Your task to perform on an android device: toggle location history Image 0: 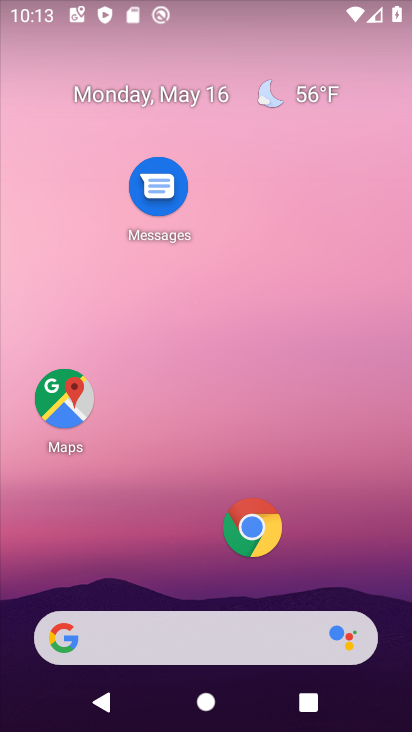
Step 0: drag from (156, 550) to (226, 62)
Your task to perform on an android device: toggle location history Image 1: 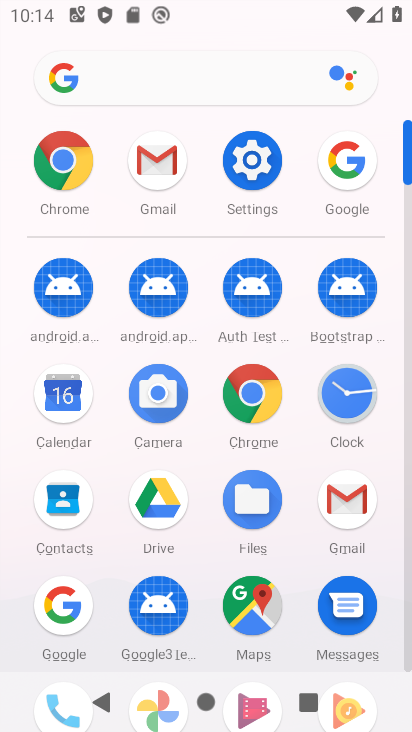
Step 1: click (251, 145)
Your task to perform on an android device: toggle location history Image 2: 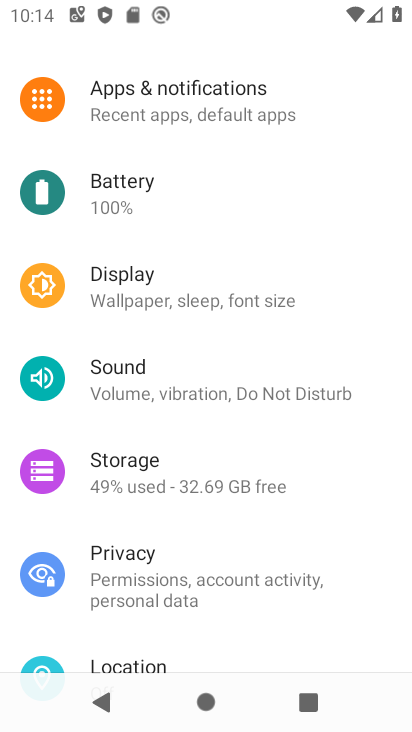
Step 2: click (123, 666)
Your task to perform on an android device: toggle location history Image 3: 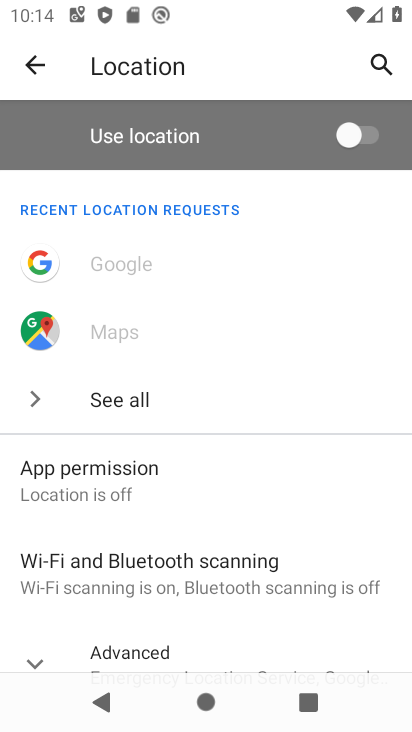
Step 3: drag from (143, 647) to (177, 259)
Your task to perform on an android device: toggle location history Image 4: 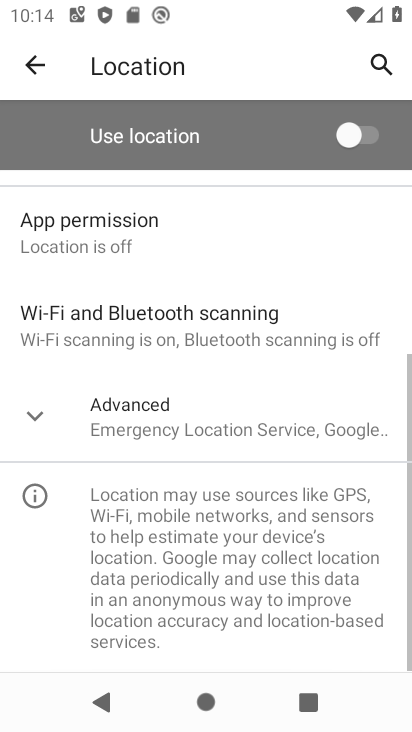
Step 4: click (130, 405)
Your task to perform on an android device: toggle location history Image 5: 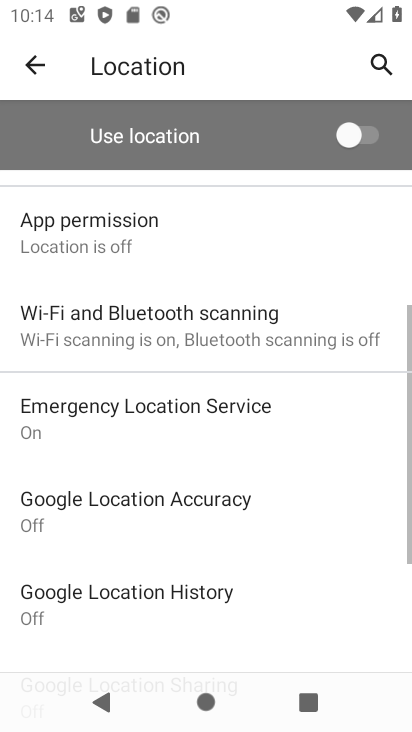
Step 5: drag from (220, 548) to (213, 440)
Your task to perform on an android device: toggle location history Image 6: 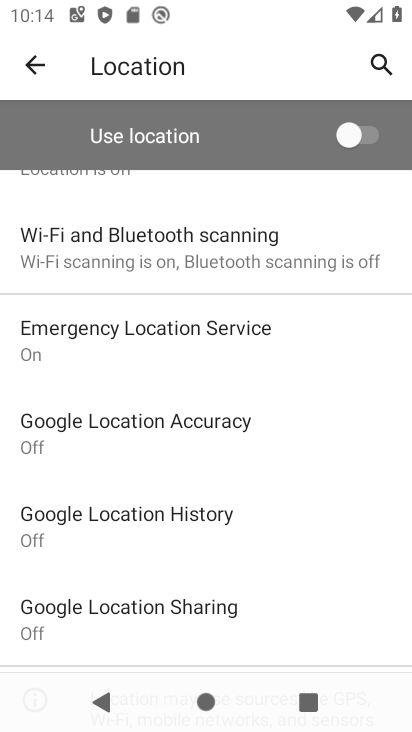
Step 6: click (144, 530)
Your task to perform on an android device: toggle location history Image 7: 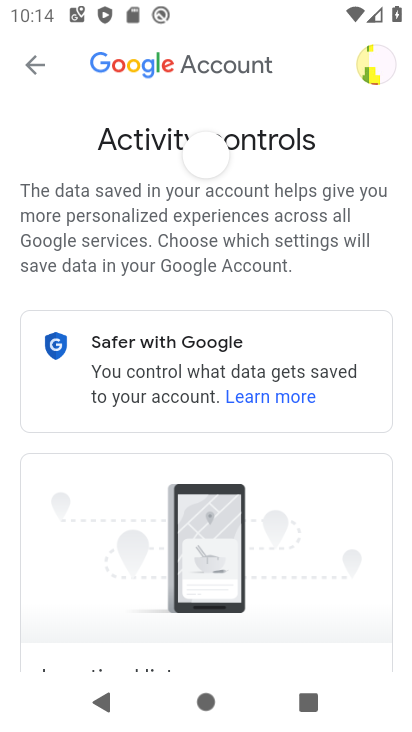
Step 7: drag from (278, 543) to (331, 21)
Your task to perform on an android device: toggle location history Image 8: 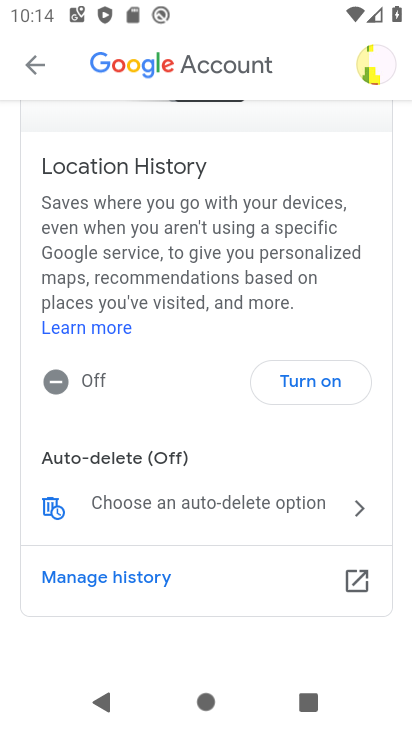
Step 8: click (304, 382)
Your task to perform on an android device: toggle location history Image 9: 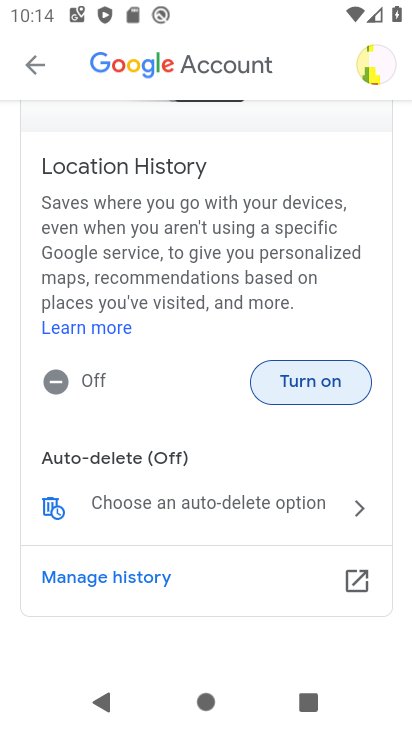
Step 9: click (314, 377)
Your task to perform on an android device: toggle location history Image 10: 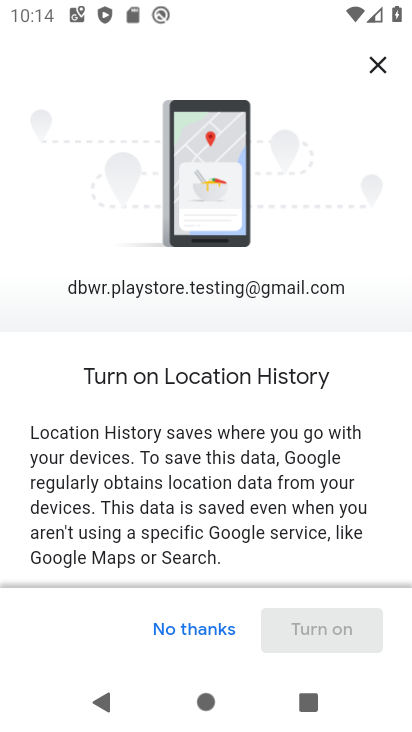
Step 10: drag from (341, 506) to (314, 124)
Your task to perform on an android device: toggle location history Image 11: 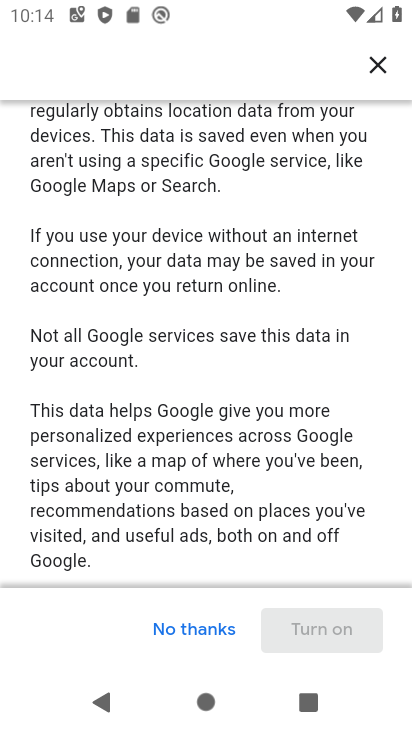
Step 11: drag from (334, 490) to (349, 103)
Your task to perform on an android device: toggle location history Image 12: 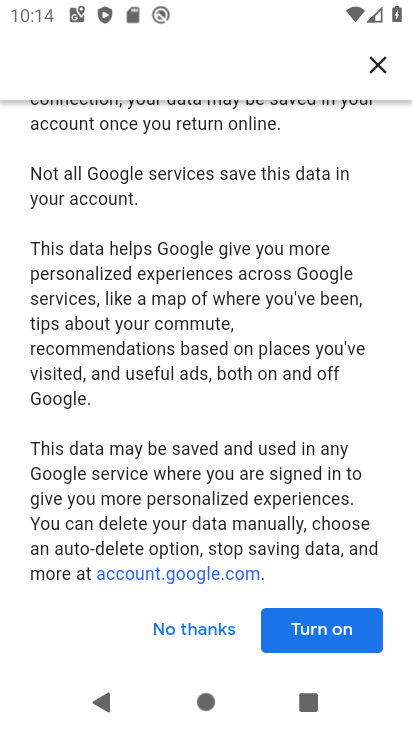
Step 12: click (302, 624)
Your task to perform on an android device: toggle location history Image 13: 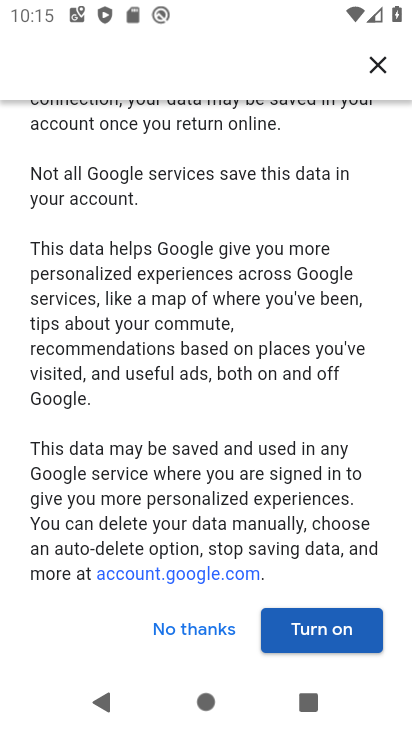
Step 13: click (332, 629)
Your task to perform on an android device: toggle location history Image 14: 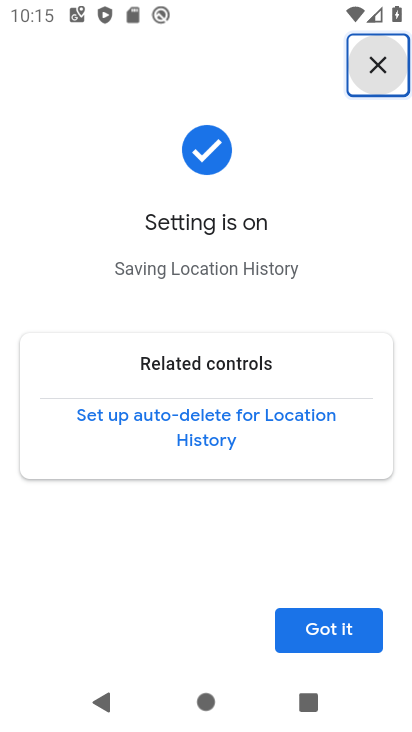
Step 14: task complete